Your task to perform on an android device: Open location settings Image 0: 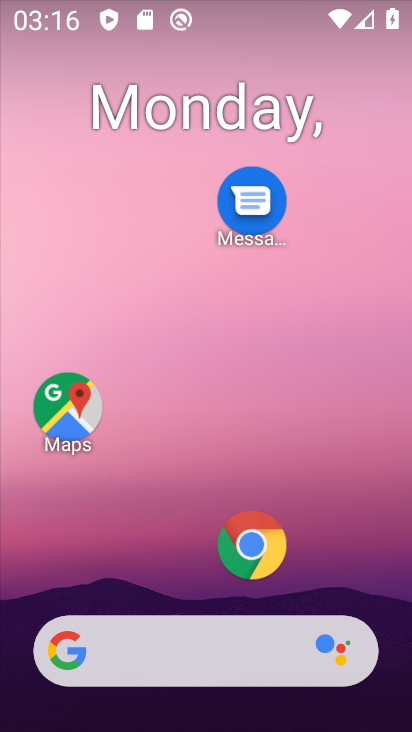
Step 0: drag from (144, 515) to (192, 159)
Your task to perform on an android device: Open location settings Image 1: 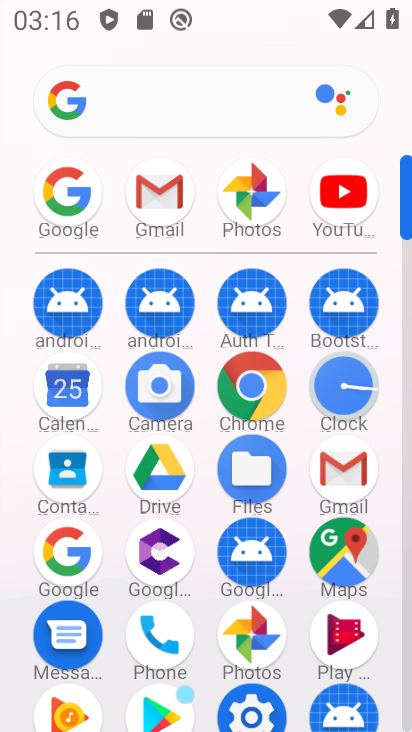
Step 1: click (260, 712)
Your task to perform on an android device: Open location settings Image 2: 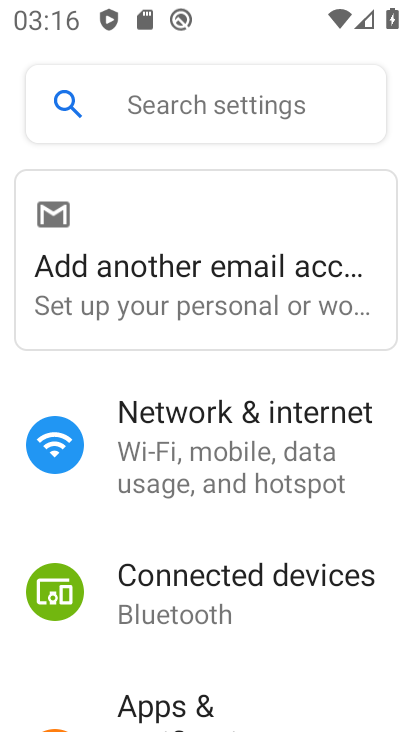
Step 2: drag from (200, 666) to (324, 212)
Your task to perform on an android device: Open location settings Image 3: 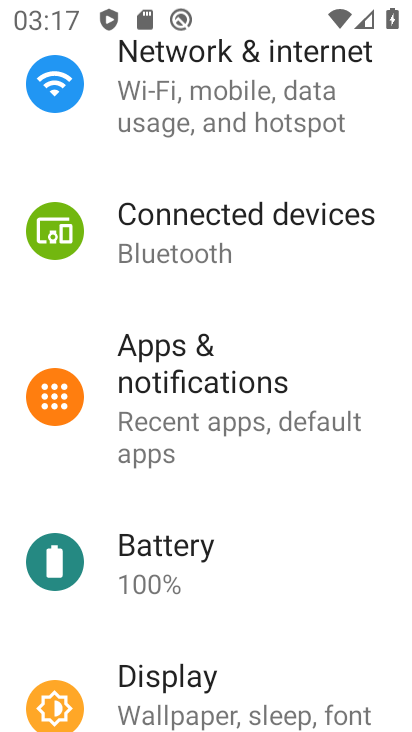
Step 3: drag from (151, 709) to (314, 184)
Your task to perform on an android device: Open location settings Image 4: 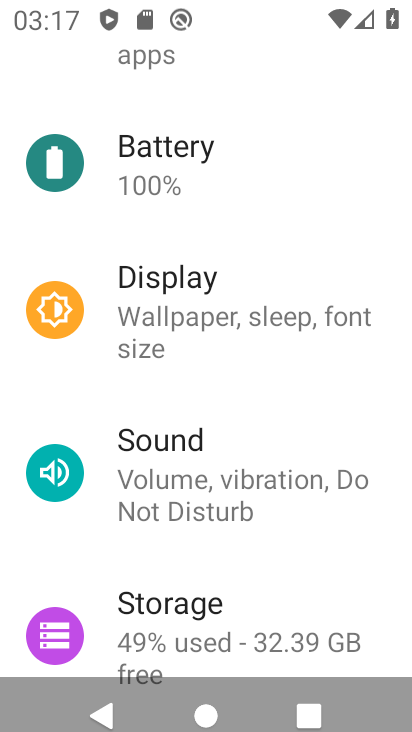
Step 4: drag from (199, 578) to (281, 230)
Your task to perform on an android device: Open location settings Image 5: 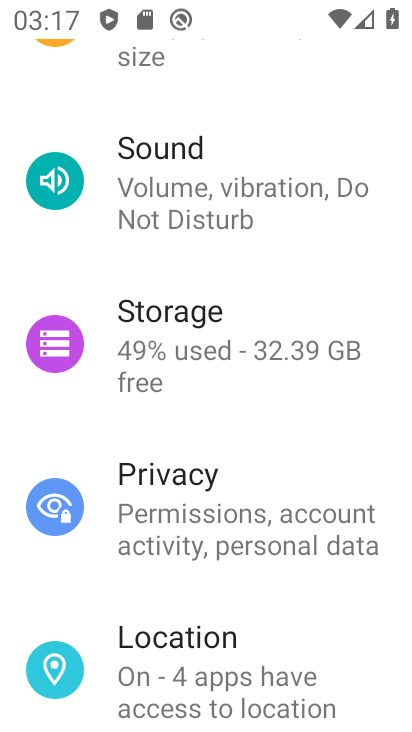
Step 5: click (181, 663)
Your task to perform on an android device: Open location settings Image 6: 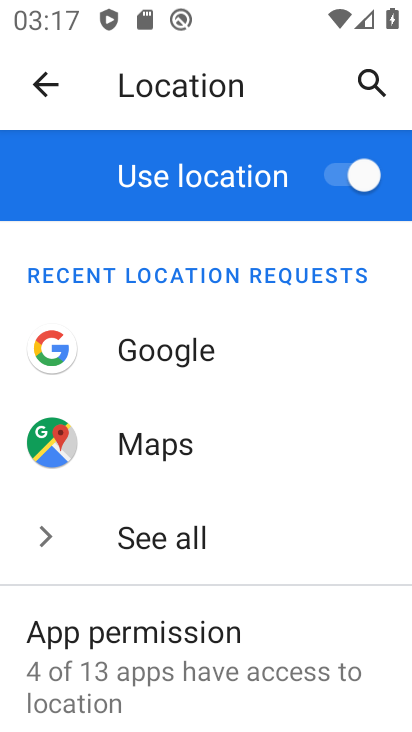
Step 6: task complete